Your task to perform on an android device: When is my next meeting? Image 0: 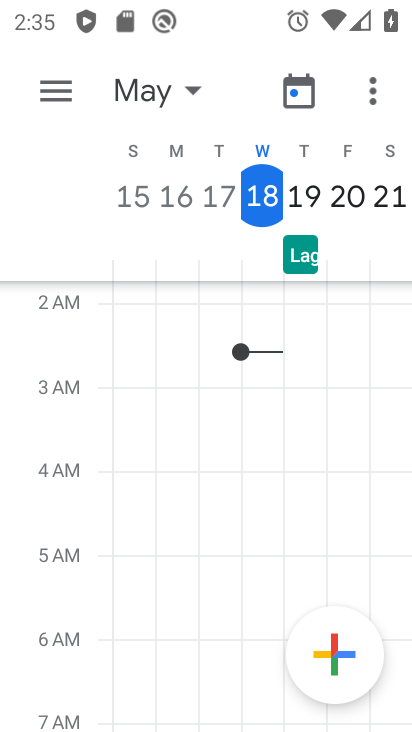
Step 0: press home button
Your task to perform on an android device: When is my next meeting? Image 1: 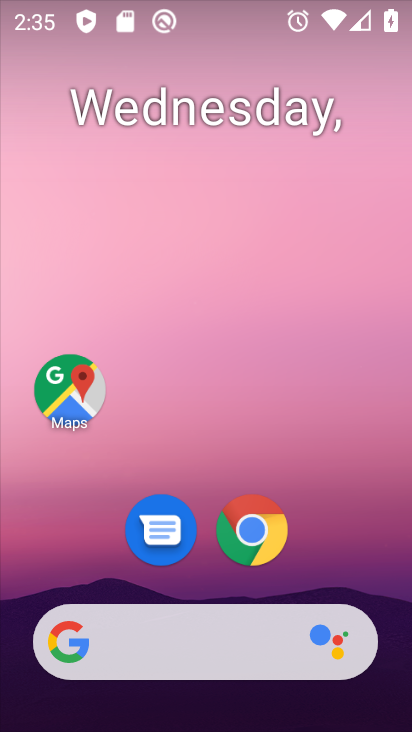
Step 1: drag from (196, 629) to (205, 106)
Your task to perform on an android device: When is my next meeting? Image 2: 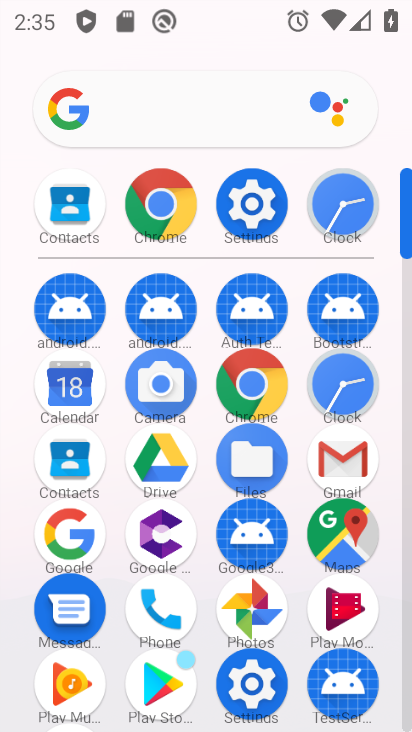
Step 2: click (63, 387)
Your task to perform on an android device: When is my next meeting? Image 3: 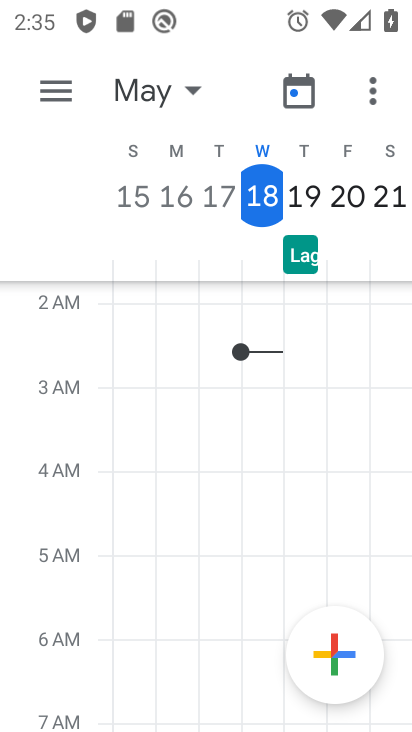
Step 3: click (59, 89)
Your task to perform on an android device: When is my next meeting? Image 4: 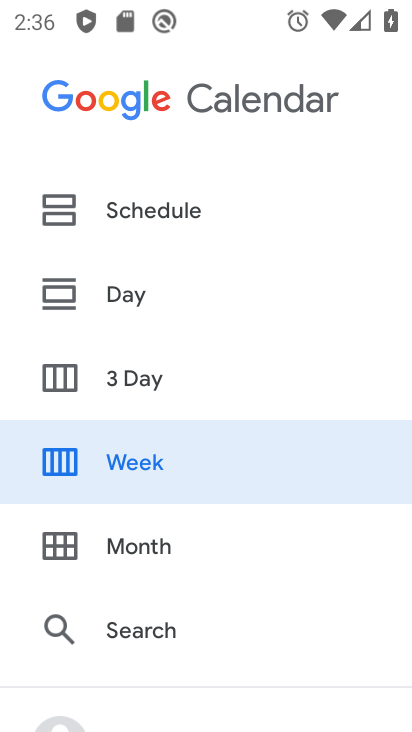
Step 4: click (177, 197)
Your task to perform on an android device: When is my next meeting? Image 5: 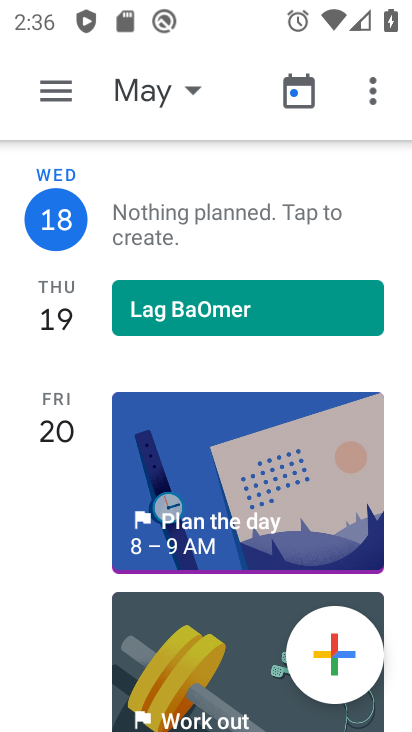
Step 5: task complete